Your task to perform on an android device: Go to Yahoo.com Image 0: 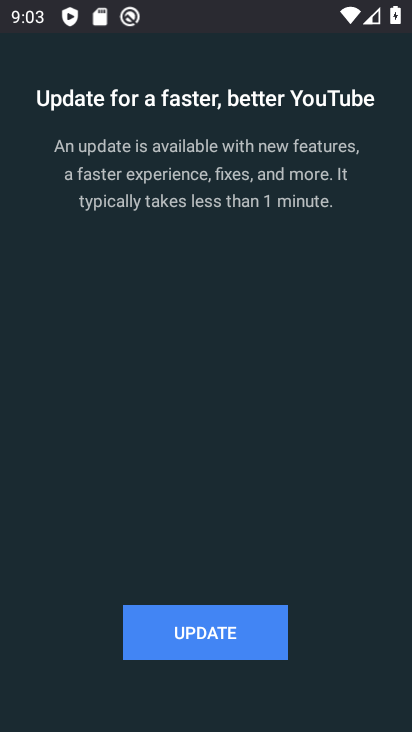
Step 0: press back button
Your task to perform on an android device: Go to Yahoo.com Image 1: 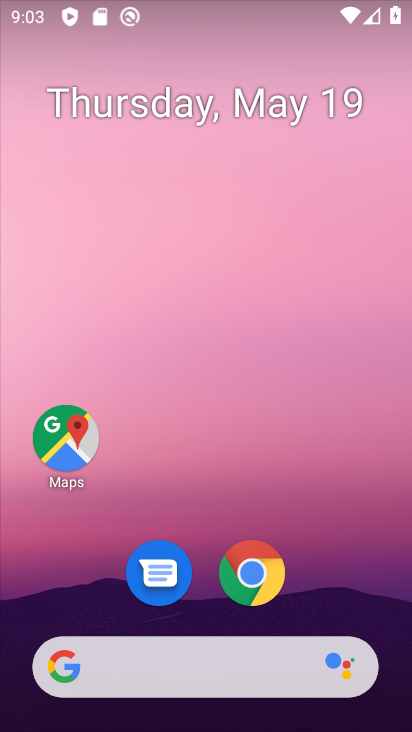
Step 1: click (265, 573)
Your task to perform on an android device: Go to Yahoo.com Image 2: 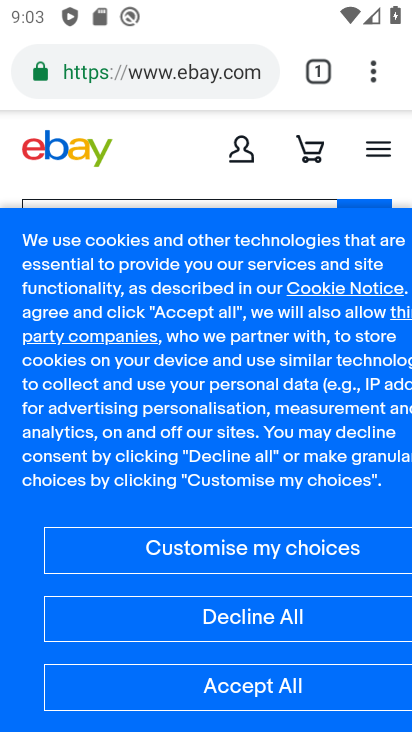
Step 2: click (312, 70)
Your task to perform on an android device: Go to Yahoo.com Image 3: 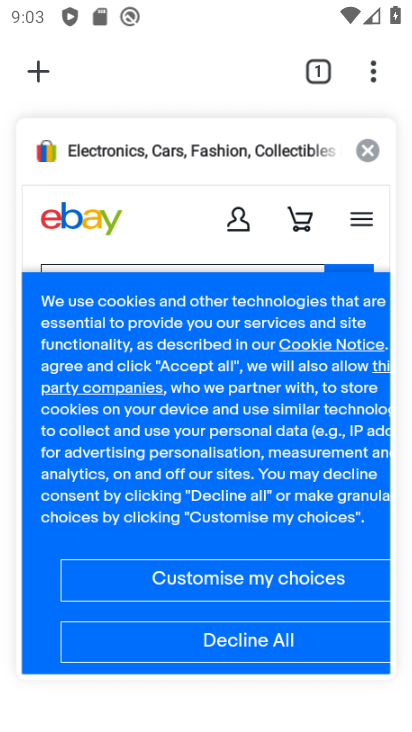
Step 3: click (46, 70)
Your task to perform on an android device: Go to Yahoo.com Image 4: 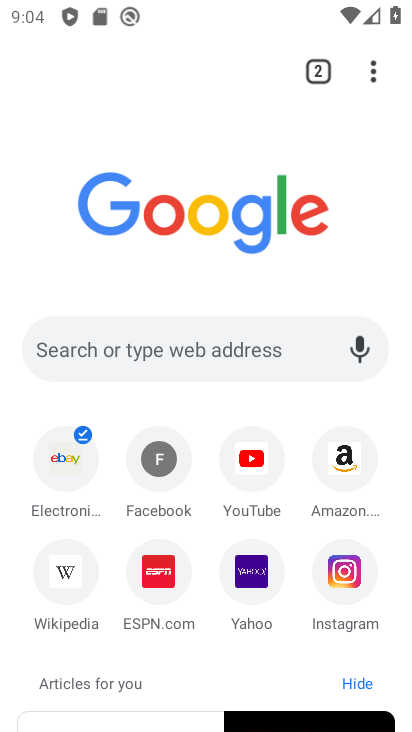
Step 4: click (267, 562)
Your task to perform on an android device: Go to Yahoo.com Image 5: 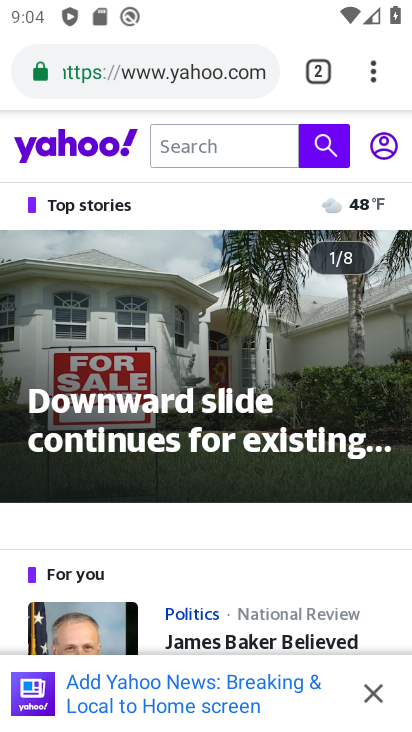
Step 5: task complete